Your task to perform on an android device: set the stopwatch Image 0: 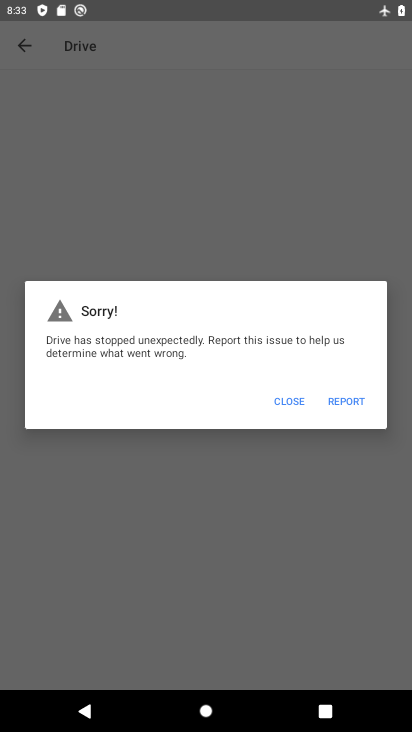
Step 0: press home button
Your task to perform on an android device: set the stopwatch Image 1: 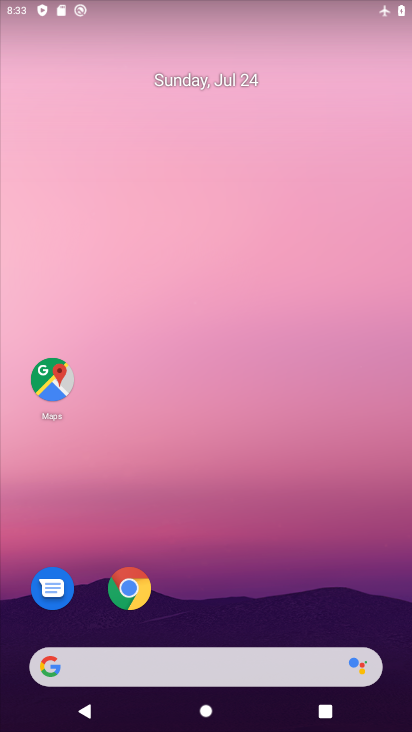
Step 1: drag from (227, 617) to (209, 183)
Your task to perform on an android device: set the stopwatch Image 2: 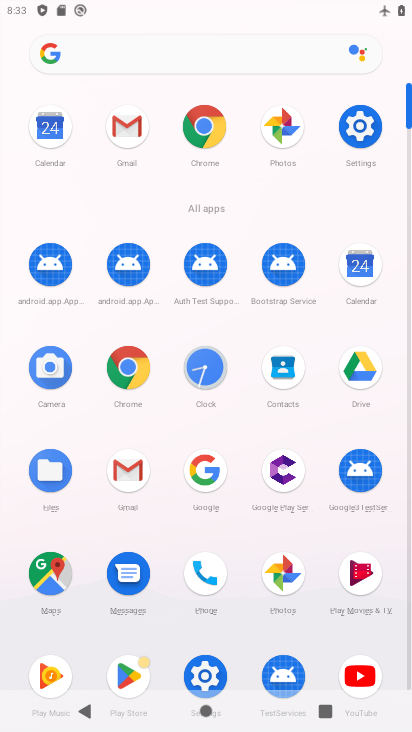
Step 2: click (217, 374)
Your task to perform on an android device: set the stopwatch Image 3: 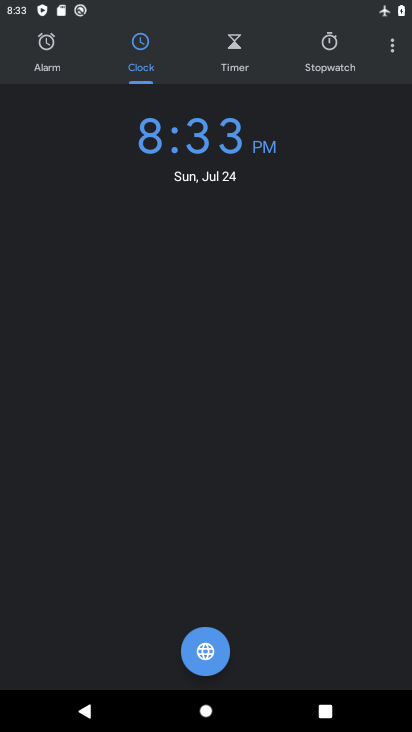
Step 3: click (344, 67)
Your task to perform on an android device: set the stopwatch Image 4: 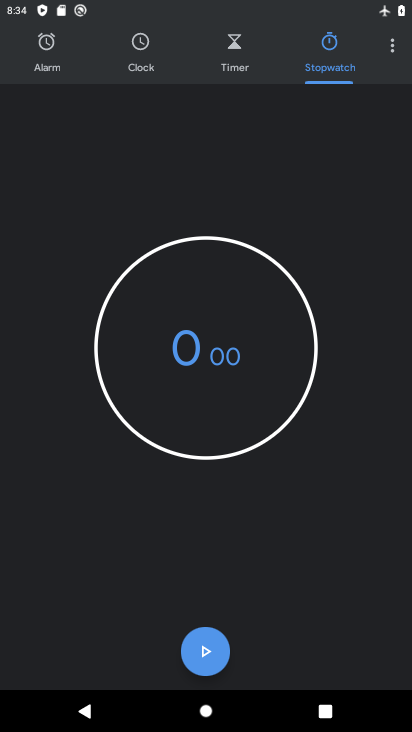
Step 4: task complete